Your task to perform on an android device: What's the weather today? Image 0: 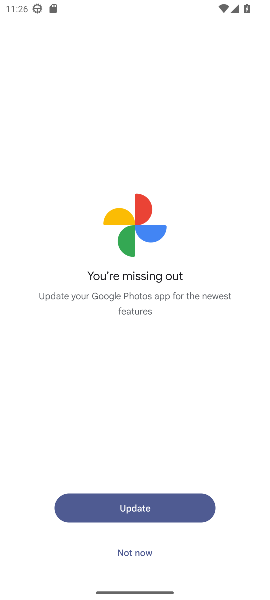
Step 0: press home button
Your task to perform on an android device: What's the weather today? Image 1: 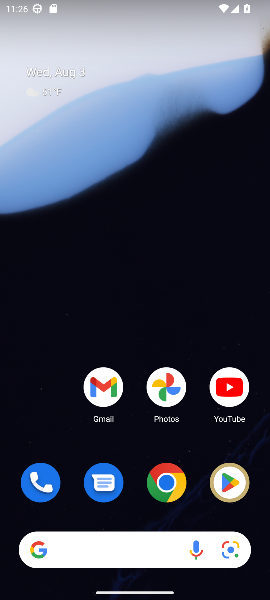
Step 1: drag from (120, 528) to (104, 208)
Your task to perform on an android device: What's the weather today? Image 2: 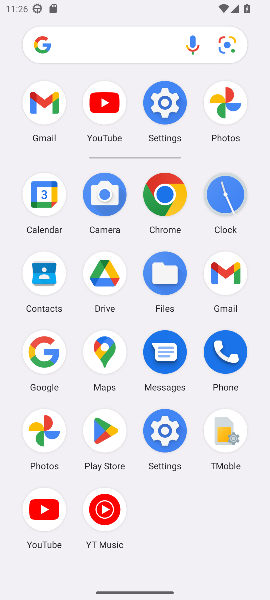
Step 2: click (112, 55)
Your task to perform on an android device: What's the weather today? Image 3: 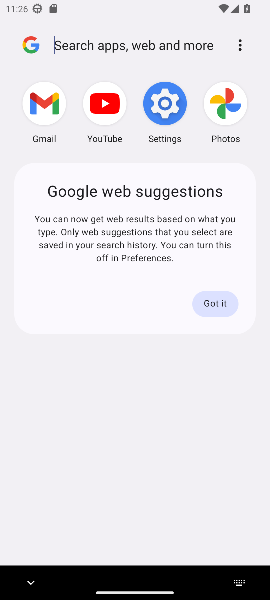
Step 3: type "weather"
Your task to perform on an android device: What's the weather today? Image 4: 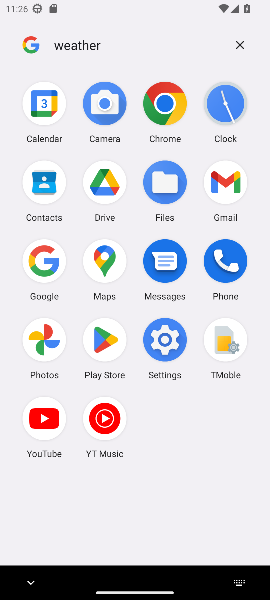
Step 4: task complete